Your task to perform on an android device: Clear the cart on amazon.com. Image 0: 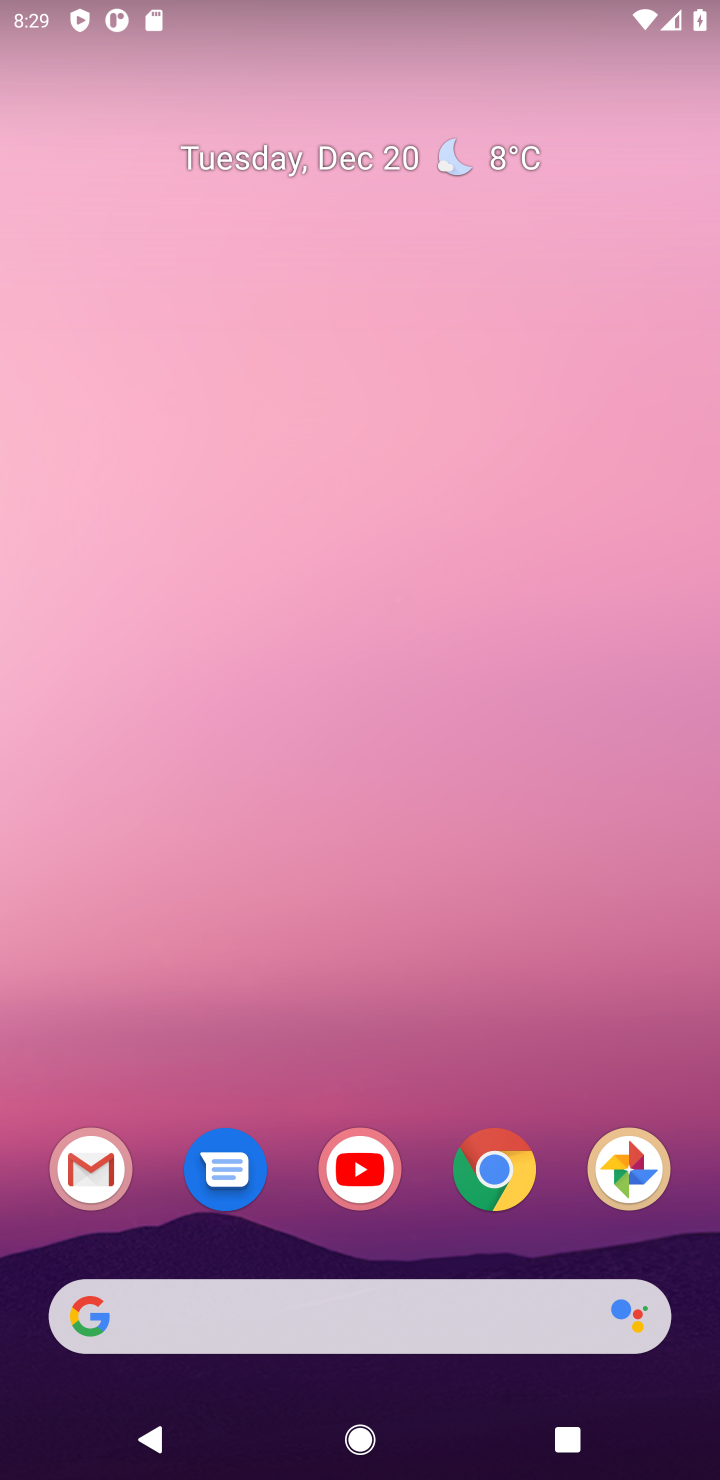
Step 0: click (502, 1186)
Your task to perform on an android device: Clear the cart on amazon.com. Image 1: 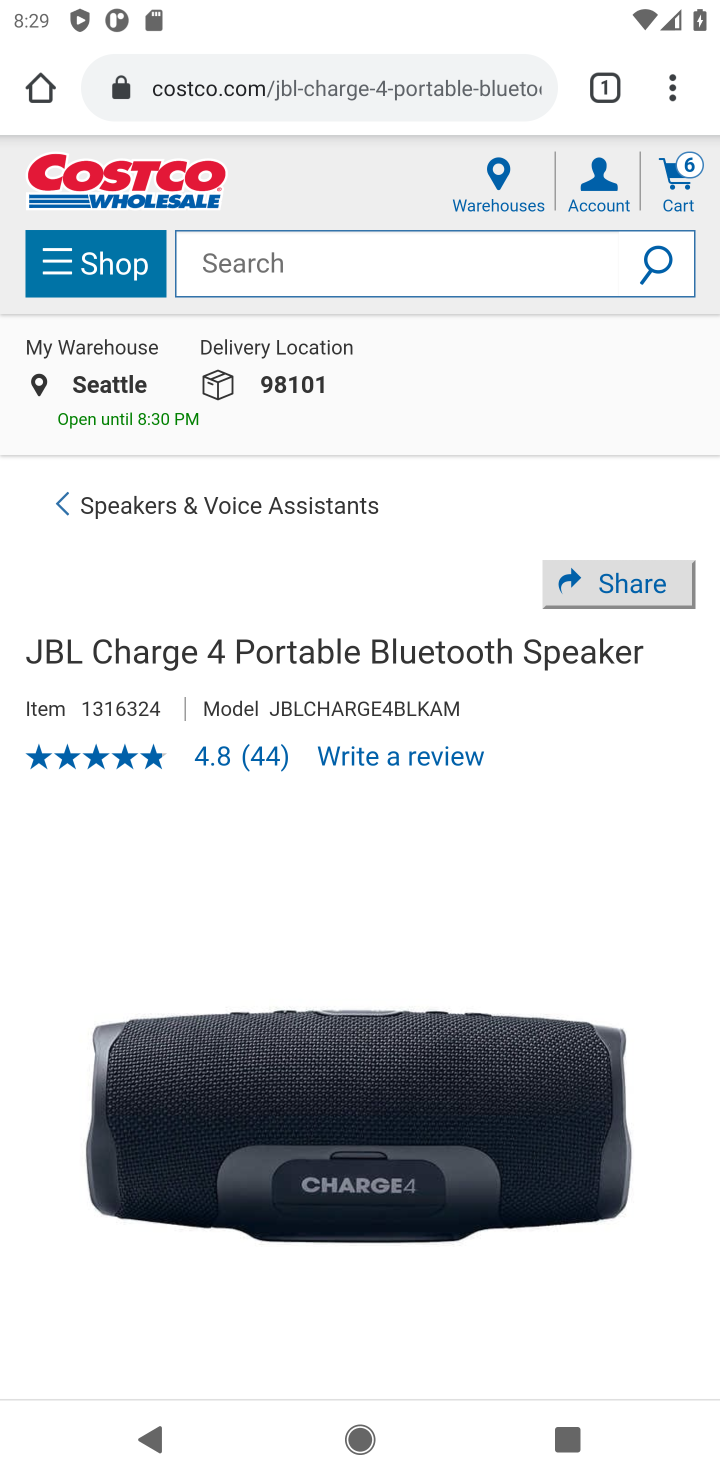
Step 1: task complete